Your task to perform on an android device: check android version Image 0: 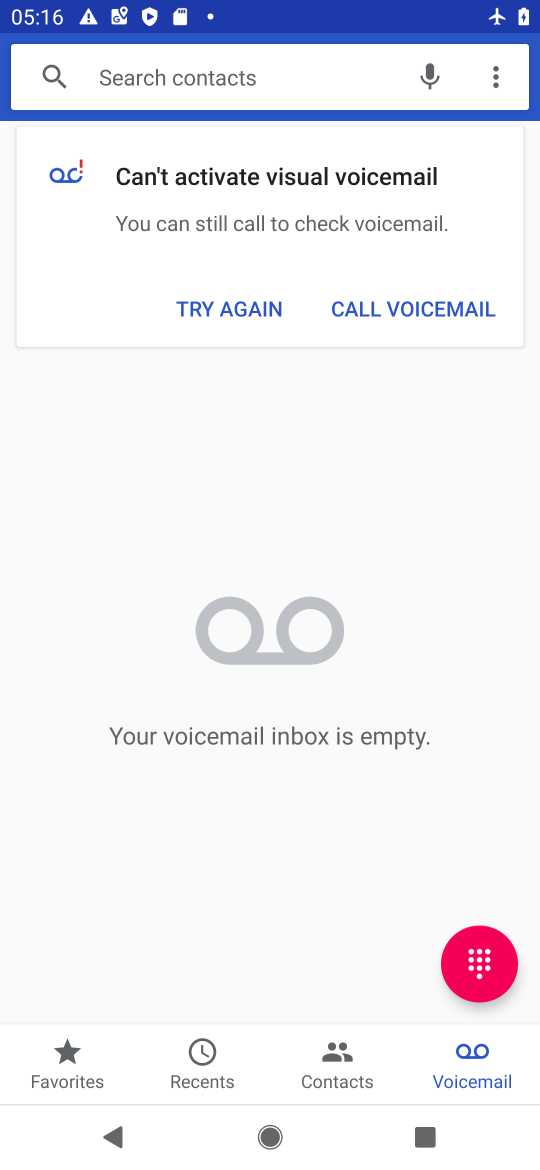
Step 0: press home button
Your task to perform on an android device: check android version Image 1: 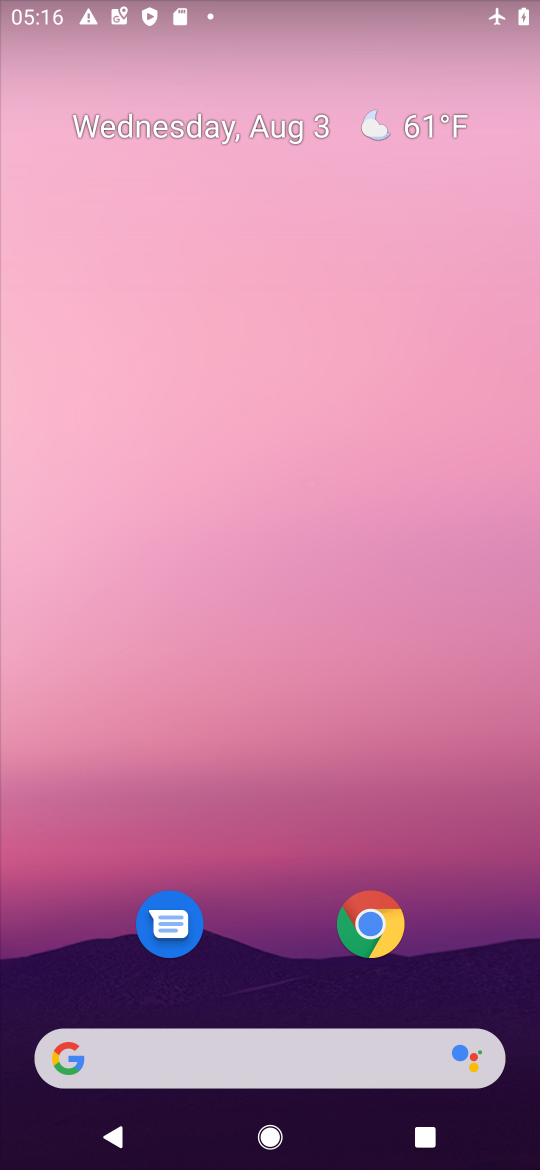
Step 1: drag from (269, 614) to (269, 187)
Your task to perform on an android device: check android version Image 2: 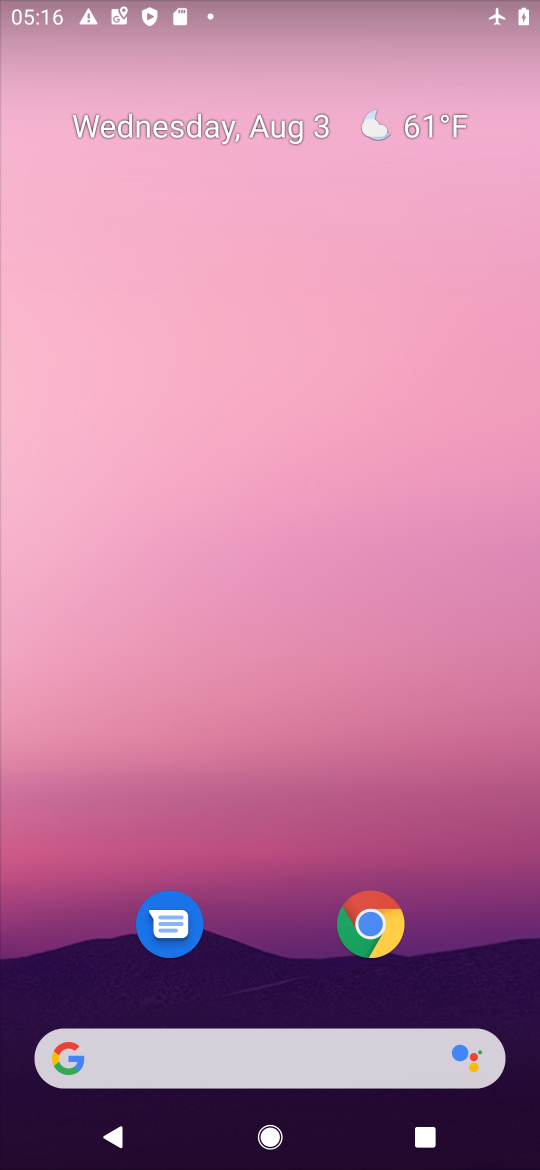
Step 2: drag from (256, 762) to (256, 120)
Your task to perform on an android device: check android version Image 3: 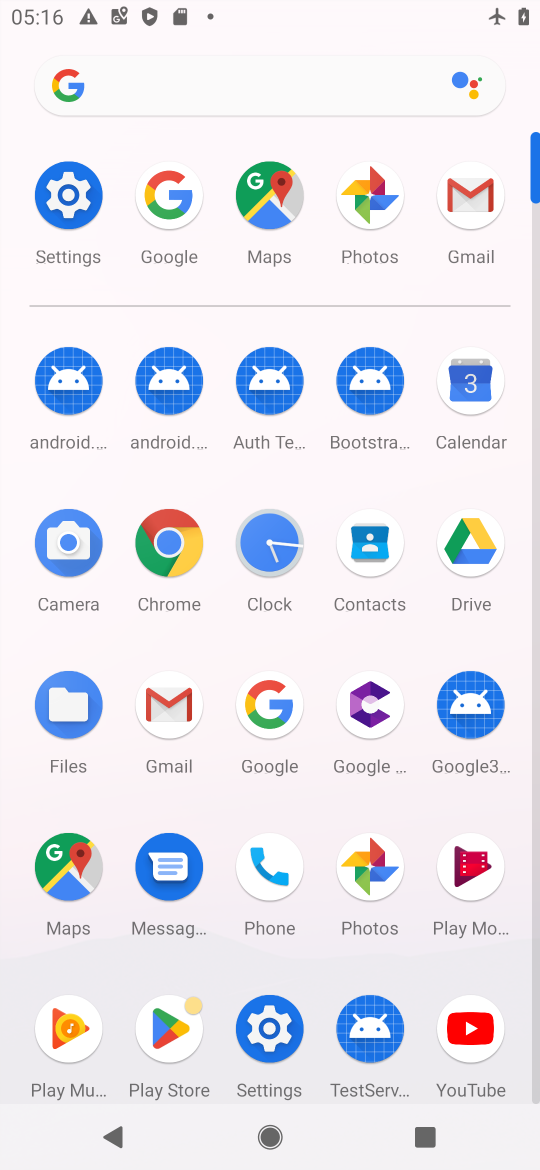
Step 3: click (91, 213)
Your task to perform on an android device: check android version Image 4: 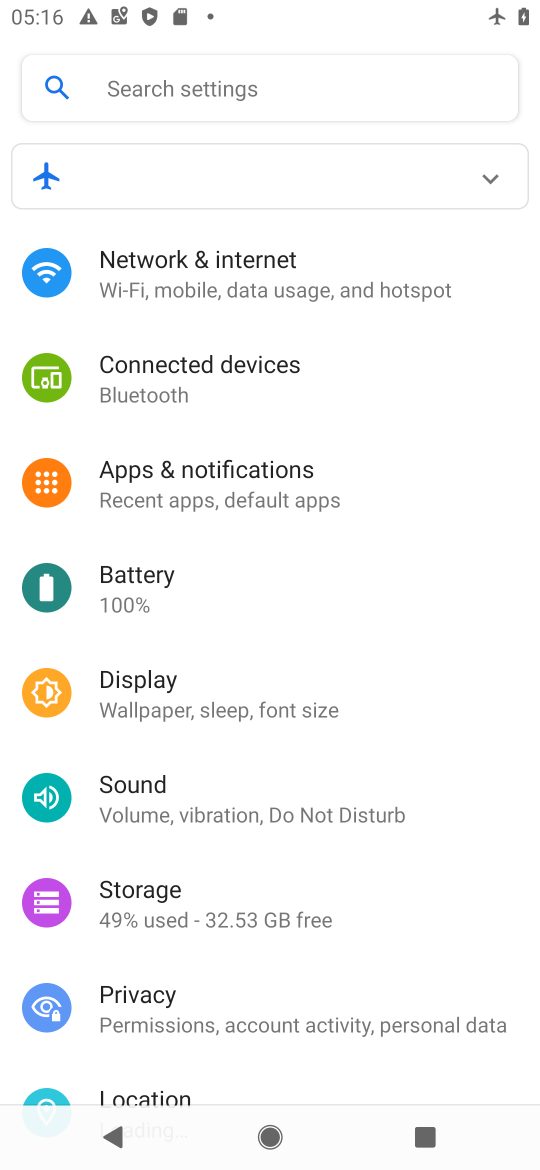
Step 4: drag from (242, 919) to (242, 246)
Your task to perform on an android device: check android version Image 5: 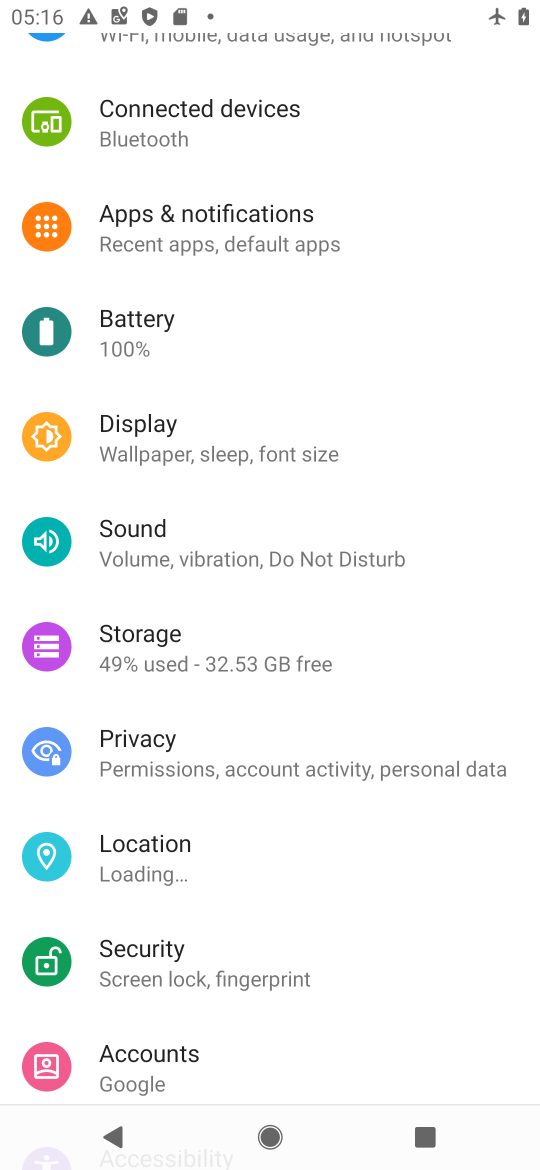
Step 5: drag from (283, 835) to (274, 310)
Your task to perform on an android device: check android version Image 6: 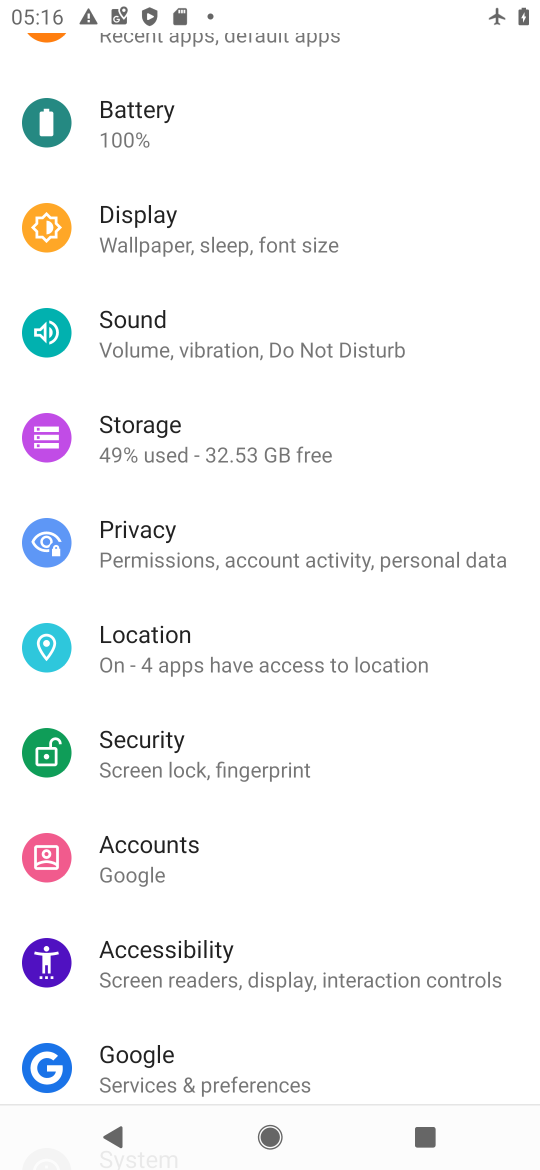
Step 6: drag from (266, 977) to (269, 416)
Your task to perform on an android device: check android version Image 7: 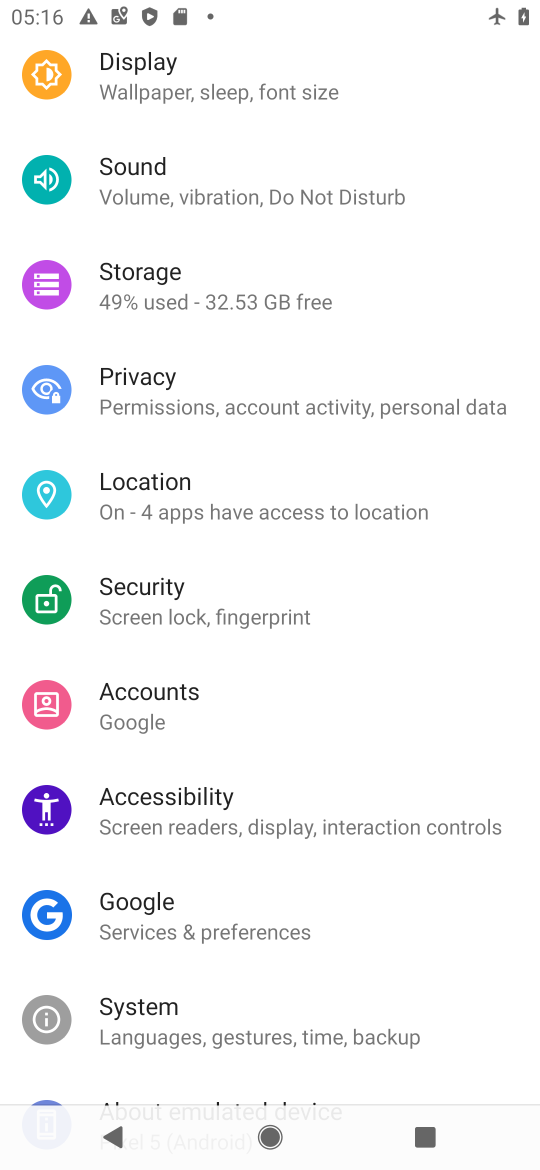
Step 7: drag from (261, 962) to (296, 445)
Your task to perform on an android device: check android version Image 8: 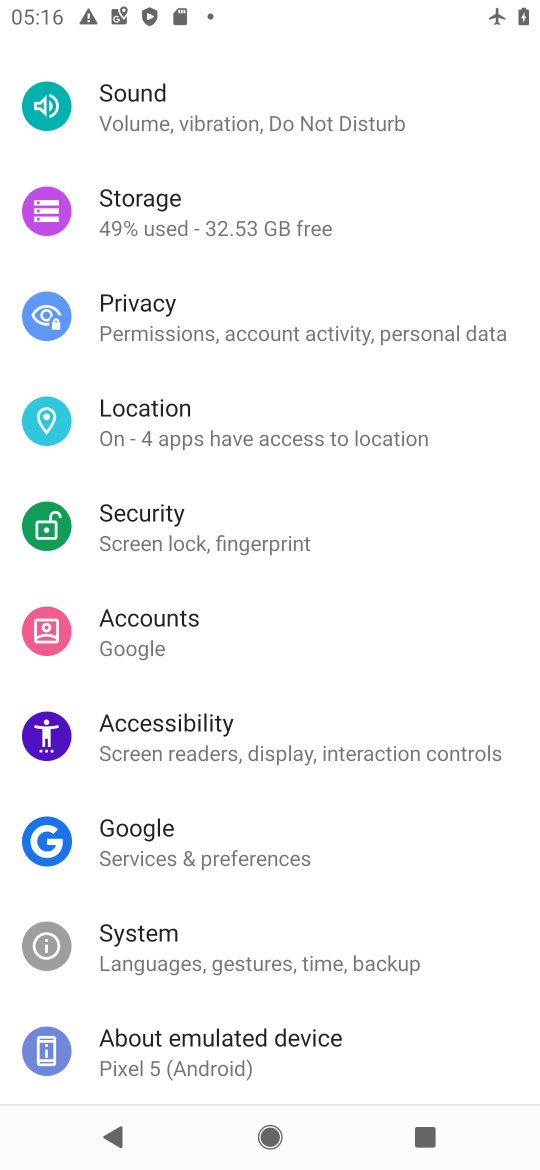
Step 8: drag from (284, 902) to (290, 446)
Your task to perform on an android device: check android version Image 9: 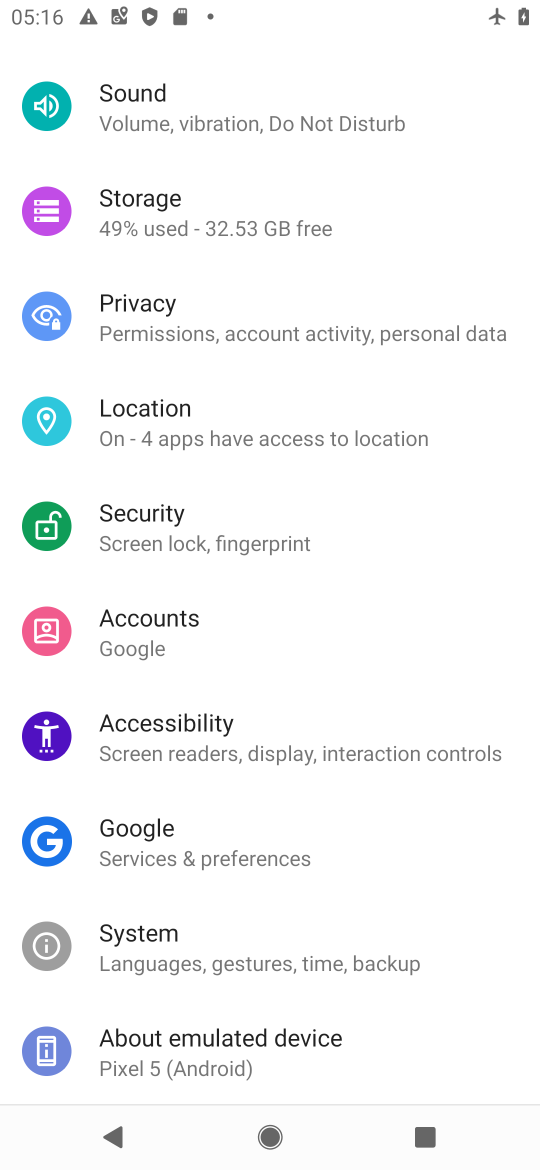
Step 9: click (258, 1038)
Your task to perform on an android device: check android version Image 10: 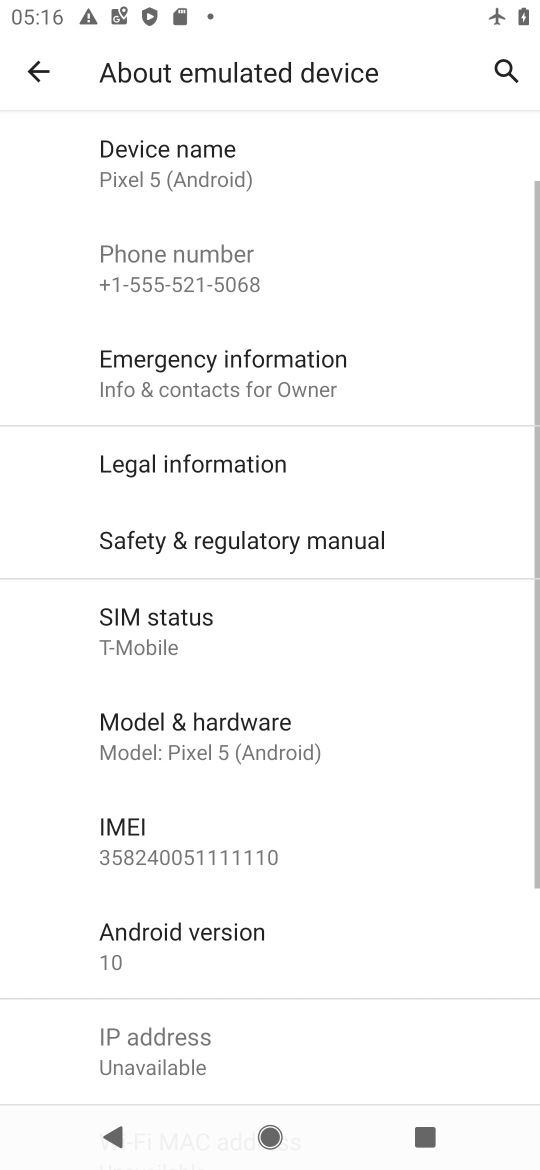
Step 10: click (256, 965)
Your task to perform on an android device: check android version Image 11: 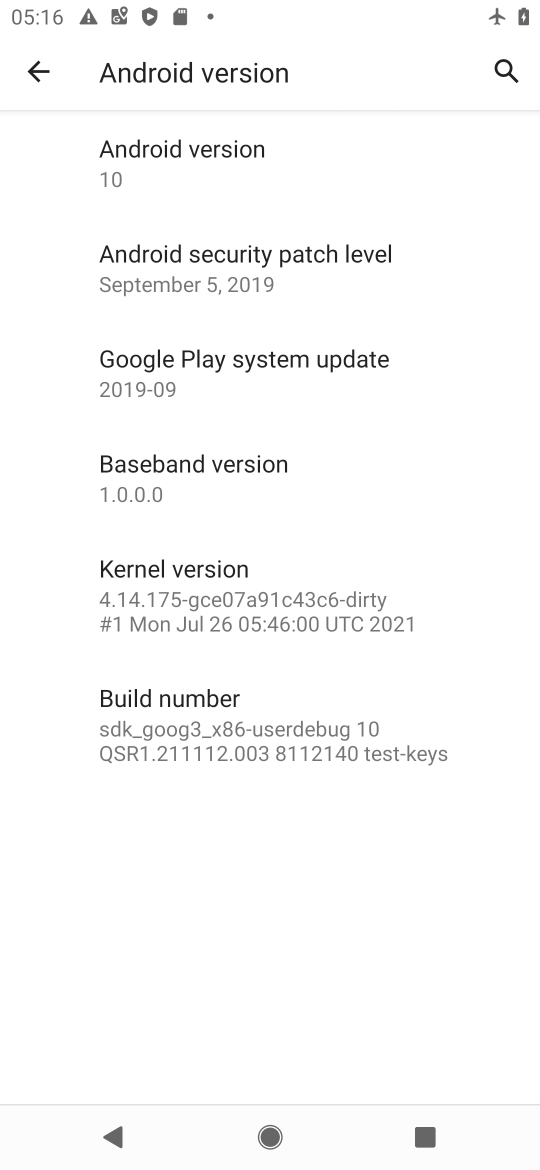
Step 11: task complete